Your task to perform on an android device: check storage Image 0: 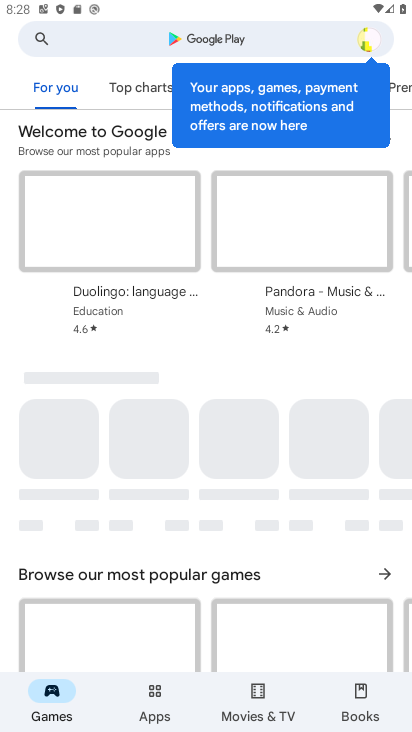
Step 0: press home button
Your task to perform on an android device: check storage Image 1: 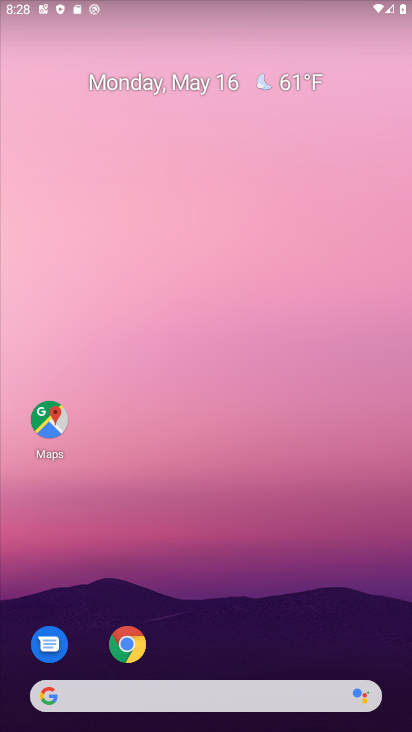
Step 1: drag from (200, 596) to (211, 61)
Your task to perform on an android device: check storage Image 2: 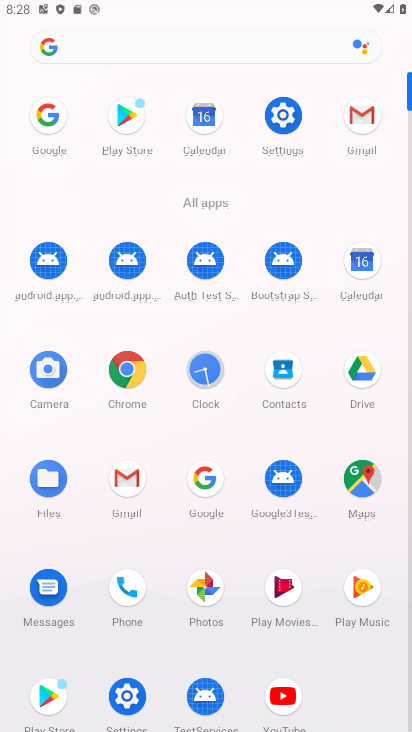
Step 2: click (285, 110)
Your task to perform on an android device: check storage Image 3: 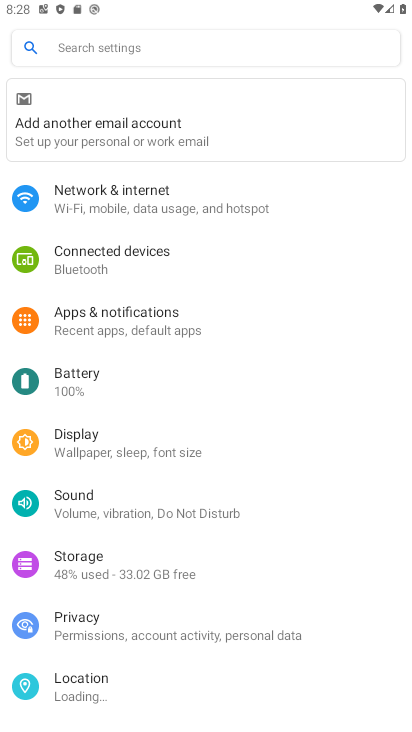
Step 3: click (120, 569)
Your task to perform on an android device: check storage Image 4: 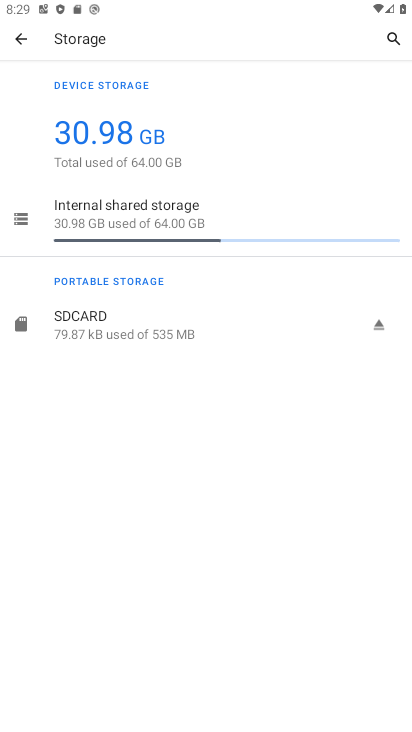
Step 4: task complete